Your task to perform on an android device: Search for Italian restaurants on Maps Image 0: 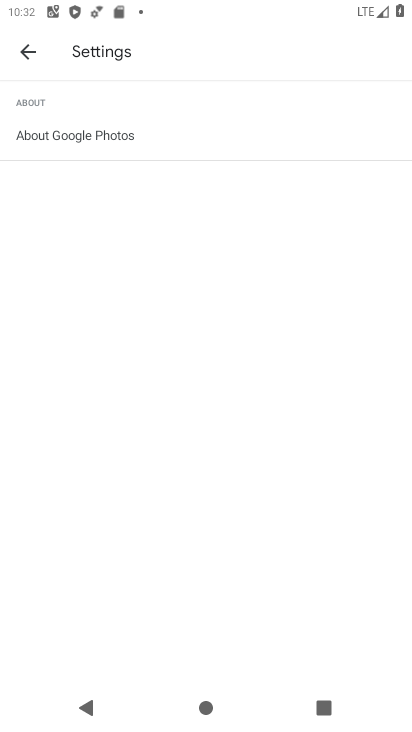
Step 0: press home button
Your task to perform on an android device: Search for Italian restaurants on Maps Image 1: 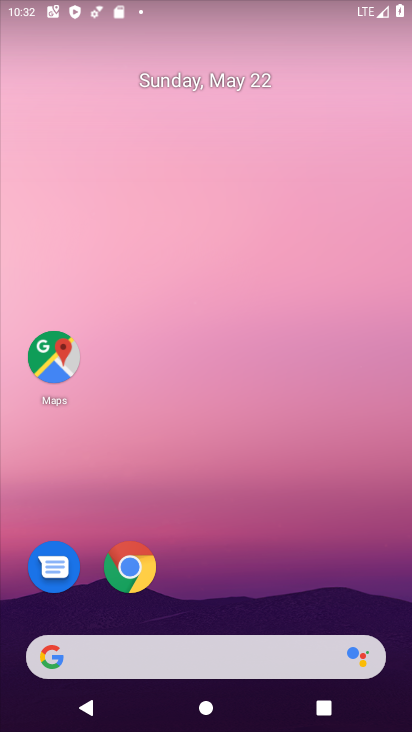
Step 1: click (55, 356)
Your task to perform on an android device: Search for Italian restaurants on Maps Image 2: 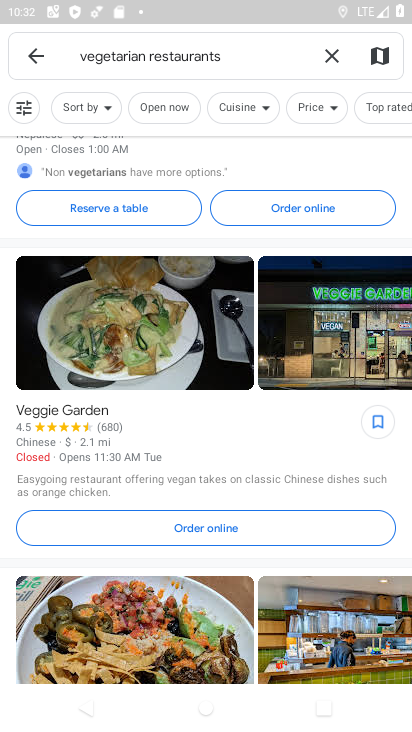
Step 2: click (332, 54)
Your task to perform on an android device: Search for Italian restaurants on Maps Image 3: 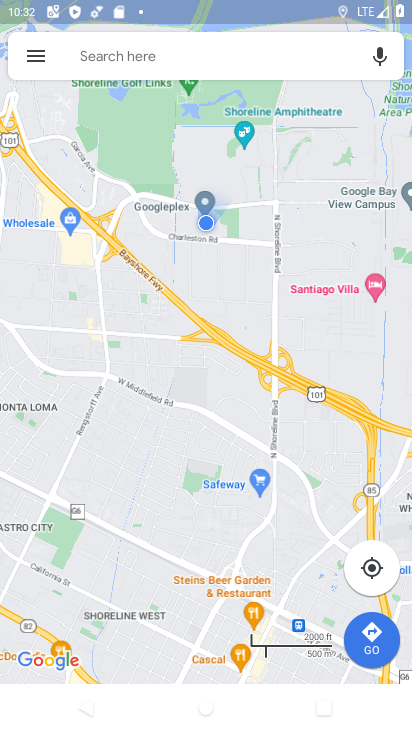
Step 3: click (142, 59)
Your task to perform on an android device: Search for Italian restaurants on Maps Image 4: 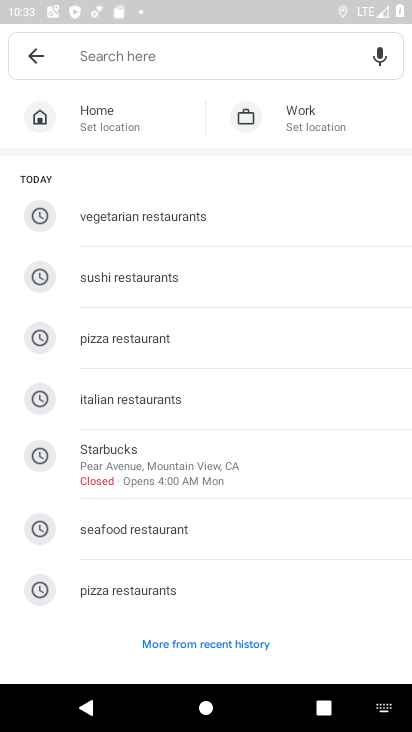
Step 4: type "italian restaurants"
Your task to perform on an android device: Search for Italian restaurants on Maps Image 5: 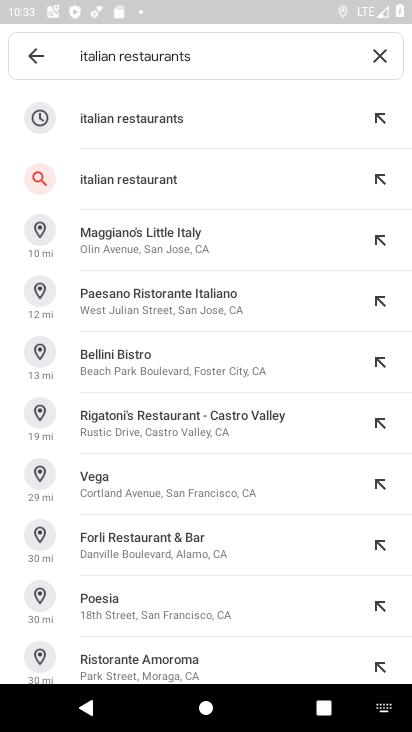
Step 5: click (137, 115)
Your task to perform on an android device: Search for Italian restaurants on Maps Image 6: 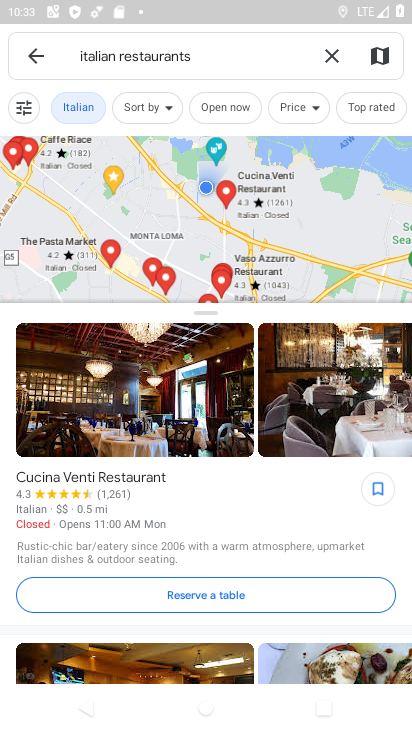
Step 6: task complete